Your task to perform on an android device: Go to display settings Image 0: 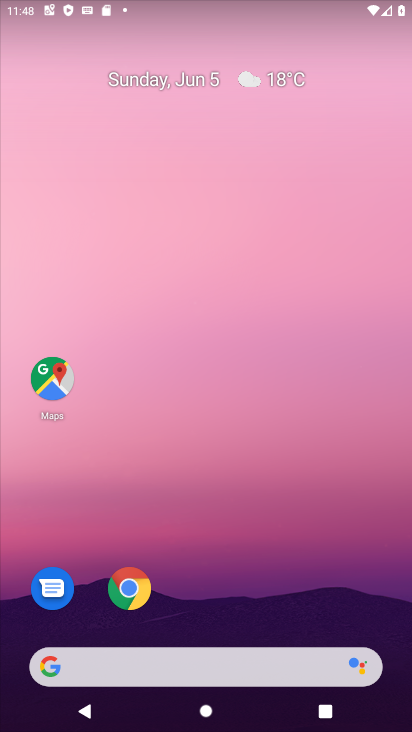
Step 0: drag from (275, 581) to (258, 248)
Your task to perform on an android device: Go to display settings Image 1: 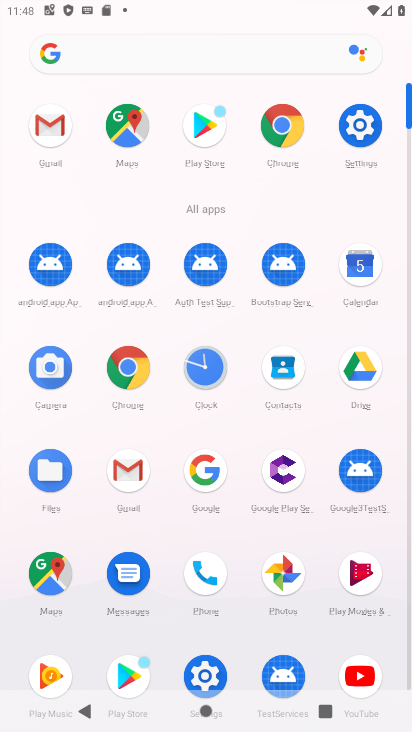
Step 1: click (368, 133)
Your task to perform on an android device: Go to display settings Image 2: 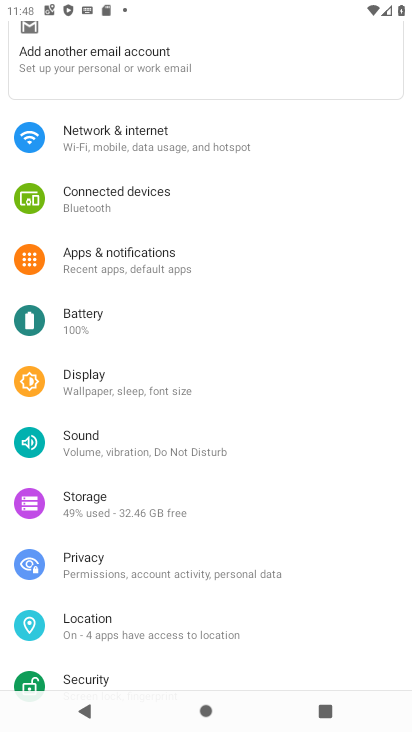
Step 2: click (306, 371)
Your task to perform on an android device: Go to display settings Image 3: 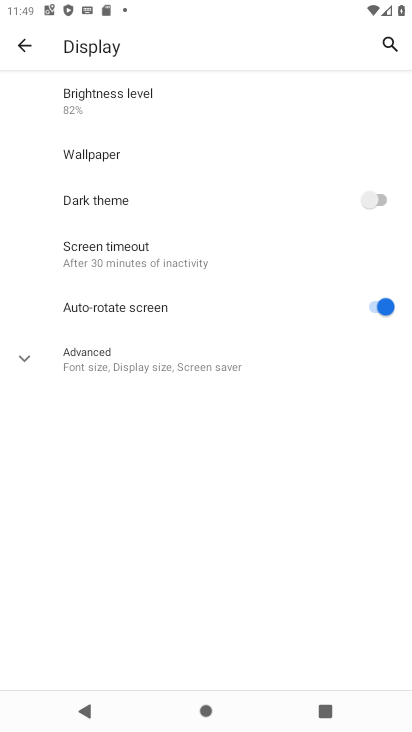
Step 3: task complete